Your task to perform on an android device: Add rayovac triple a to the cart on costco, then select checkout. Image 0: 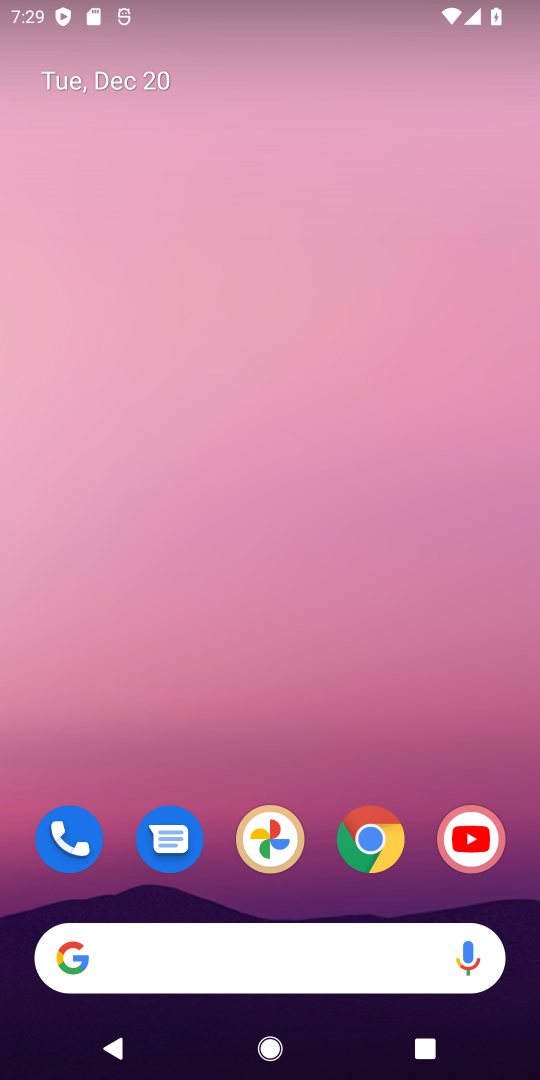
Step 0: click (244, 945)
Your task to perform on an android device: Add rayovac triple a to the cart on costco, then select checkout. Image 1: 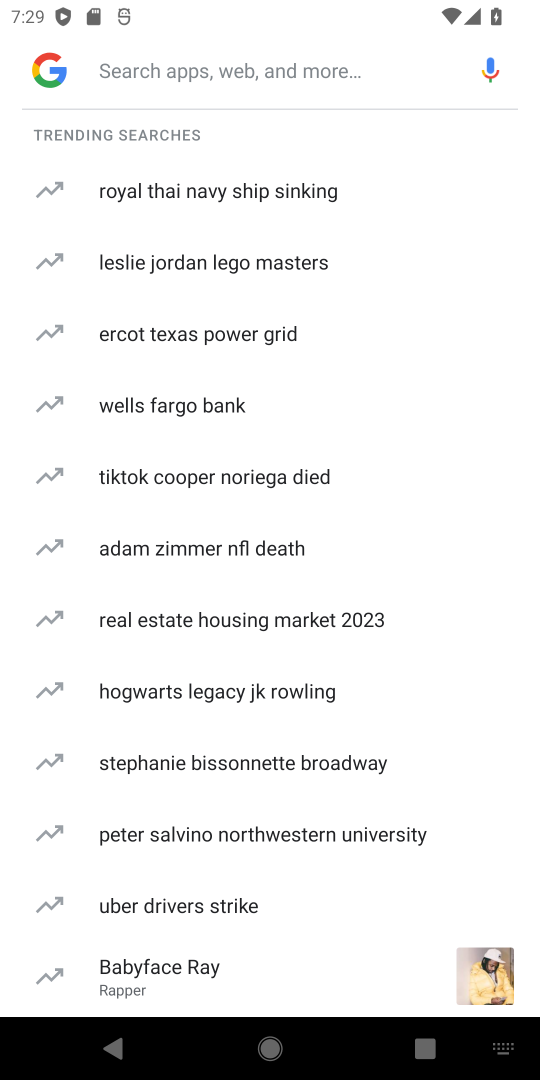
Step 1: type ""
Your task to perform on an android device: Add rayovac triple a to the cart on costco, then select checkout. Image 2: 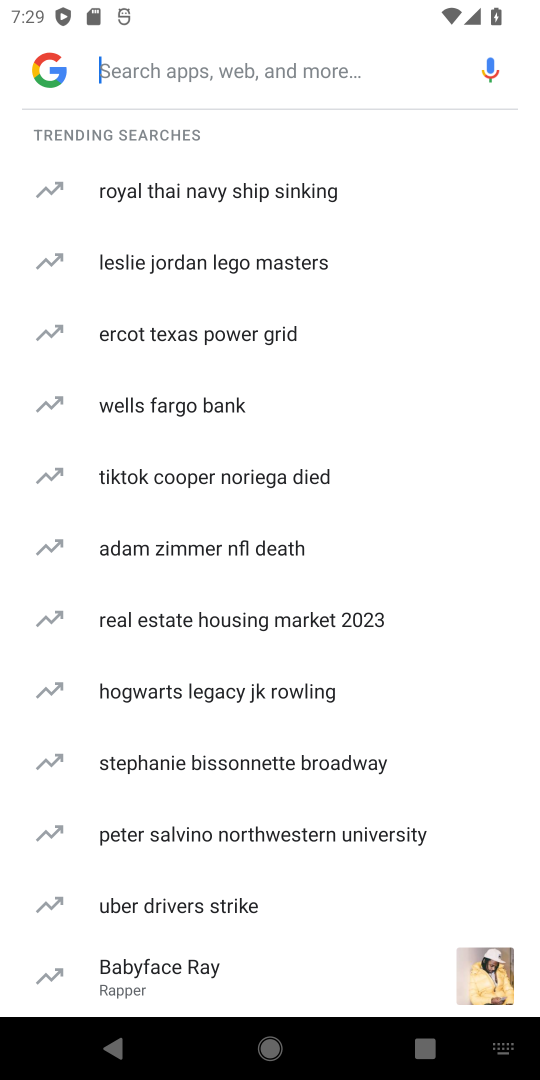
Step 2: type "costco"
Your task to perform on an android device: Add rayovac triple a to the cart on costco, then select checkout. Image 3: 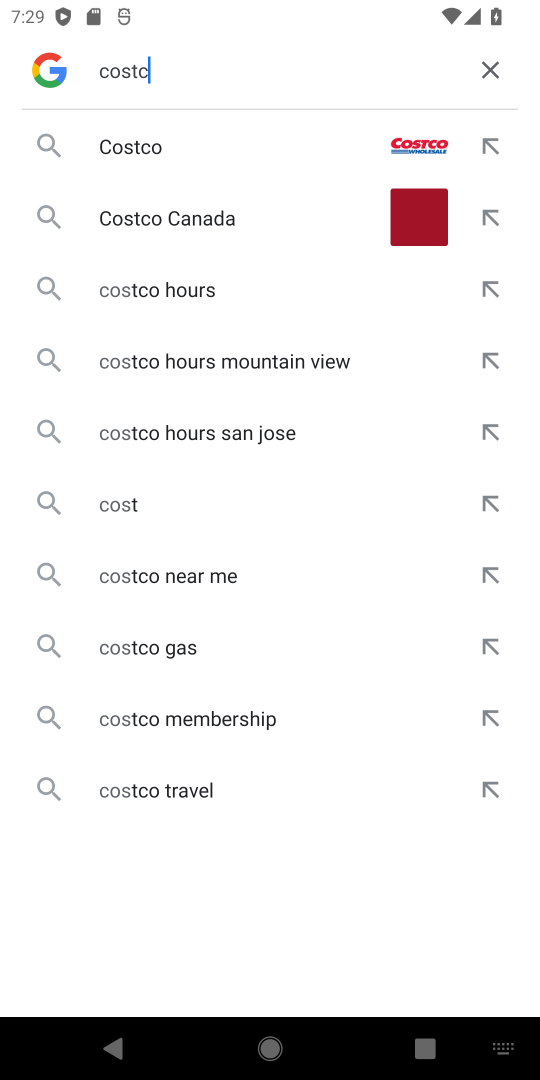
Step 3: type ""
Your task to perform on an android device: Add rayovac triple a to the cart on costco, then select checkout. Image 4: 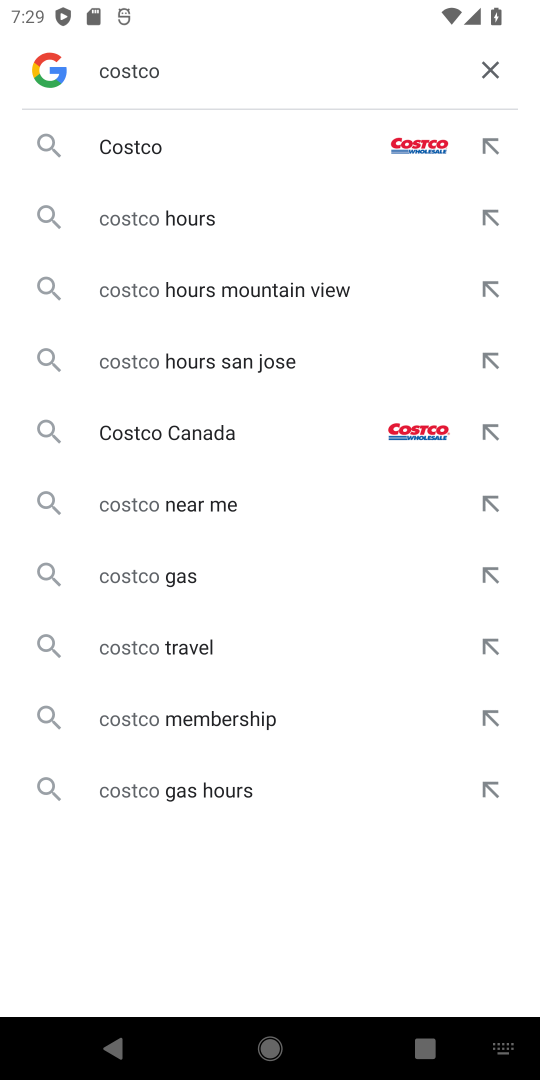
Step 4: click (197, 164)
Your task to perform on an android device: Add rayovac triple a to the cart on costco, then select checkout. Image 5: 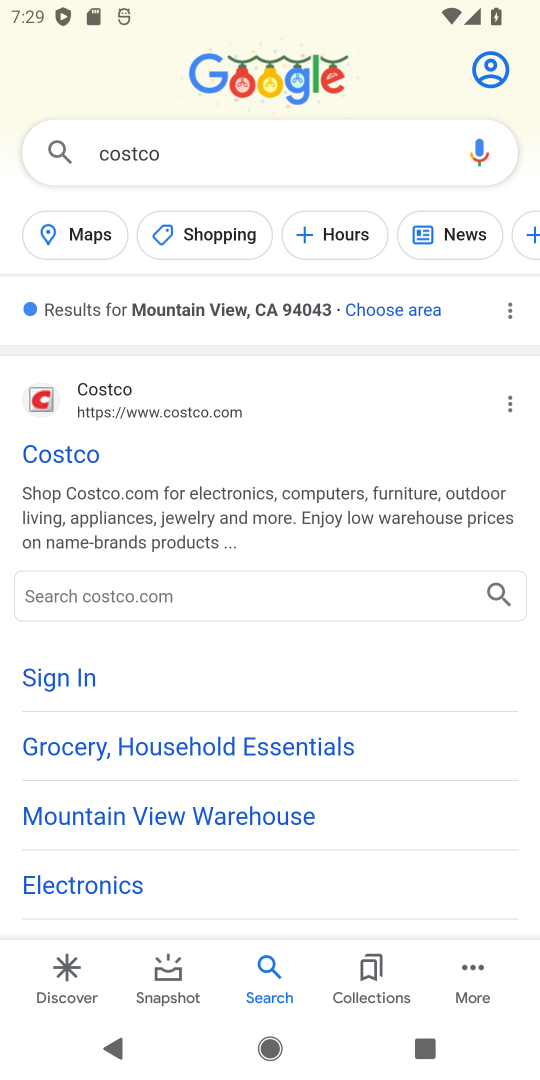
Step 5: click (64, 464)
Your task to perform on an android device: Add rayovac triple a to the cart on costco, then select checkout. Image 6: 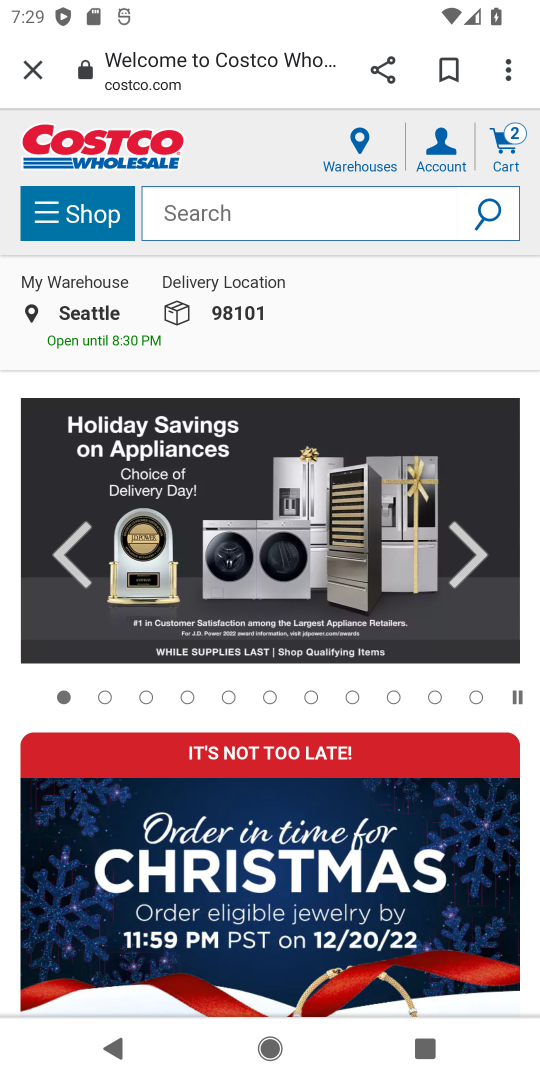
Step 6: click (202, 188)
Your task to perform on an android device: Add rayovac triple a to the cart on costco, then select checkout. Image 7: 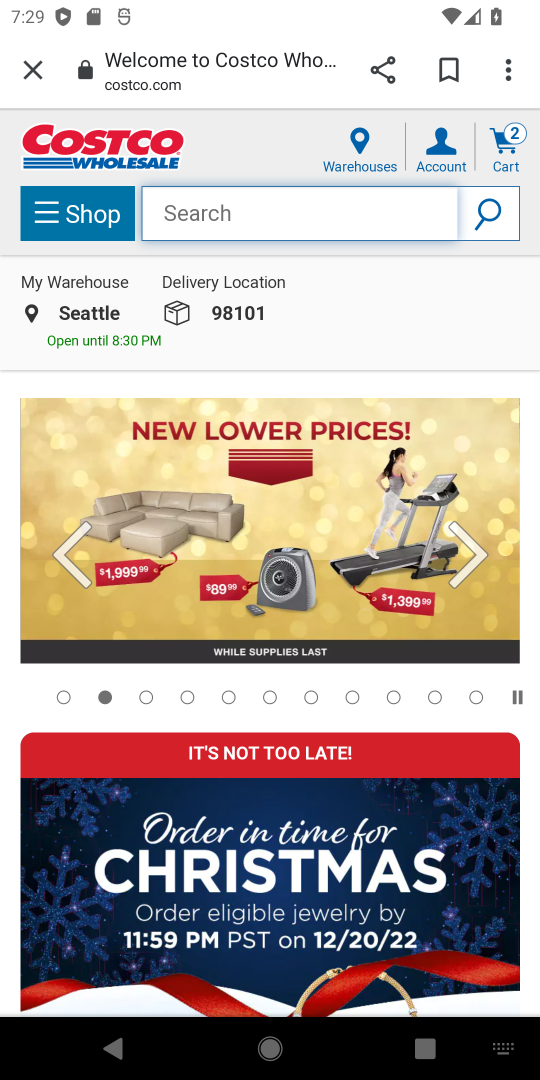
Step 7: type "rayovac triple"
Your task to perform on an android device: Add rayovac triple a to the cart on costco, then select checkout. Image 8: 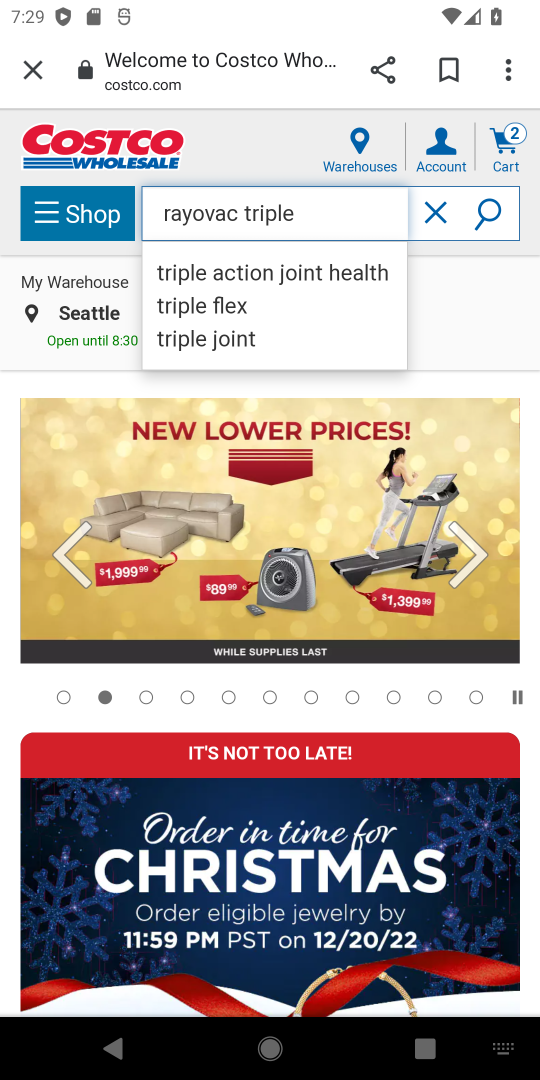
Step 8: click (488, 214)
Your task to perform on an android device: Add rayovac triple a to the cart on costco, then select checkout. Image 9: 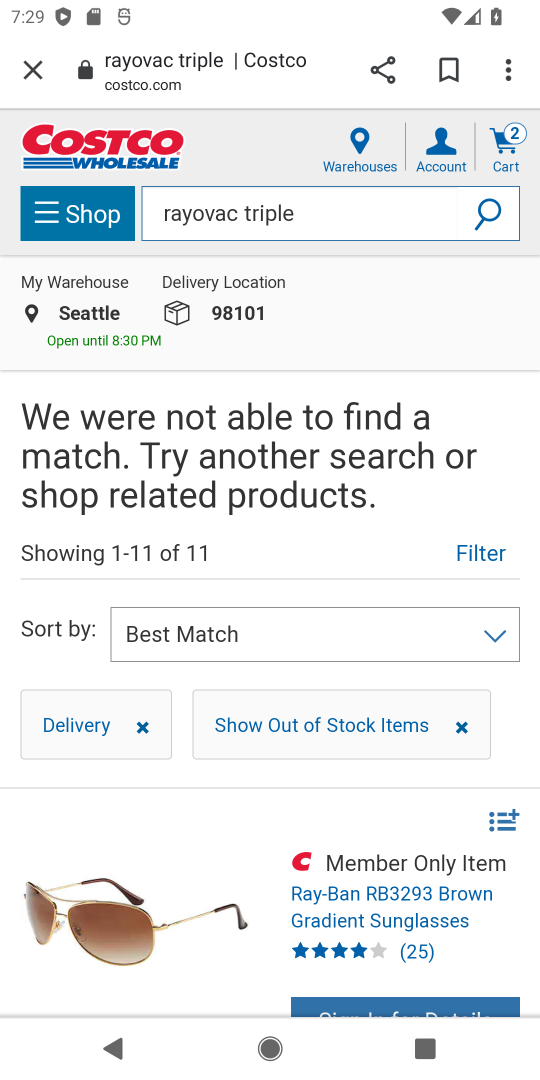
Step 9: drag from (200, 870) to (154, 502)
Your task to perform on an android device: Add rayovac triple a to the cart on costco, then select checkout. Image 10: 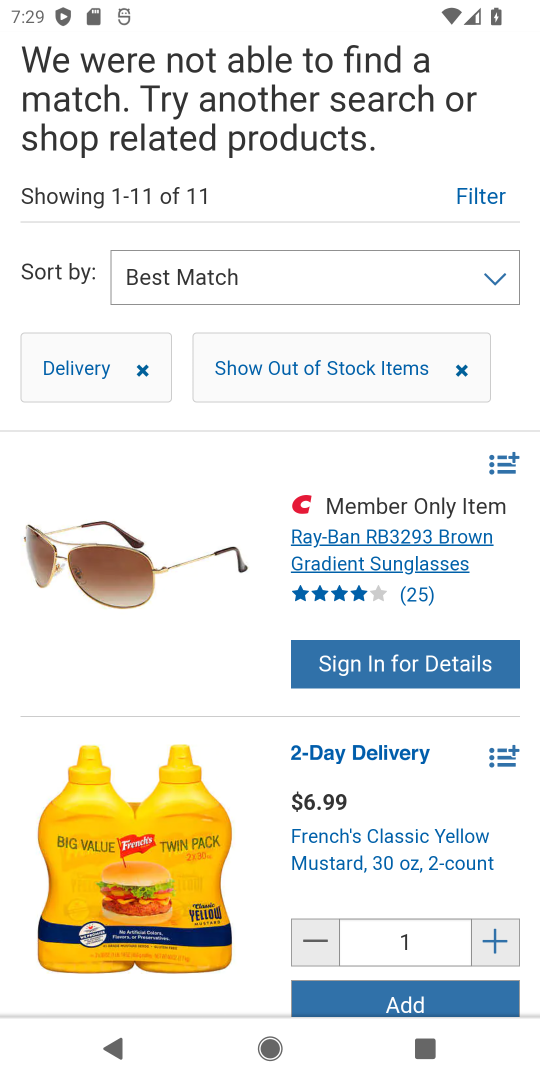
Step 10: drag from (235, 593) to (174, 977)
Your task to perform on an android device: Add rayovac triple a to the cart on costco, then select checkout. Image 11: 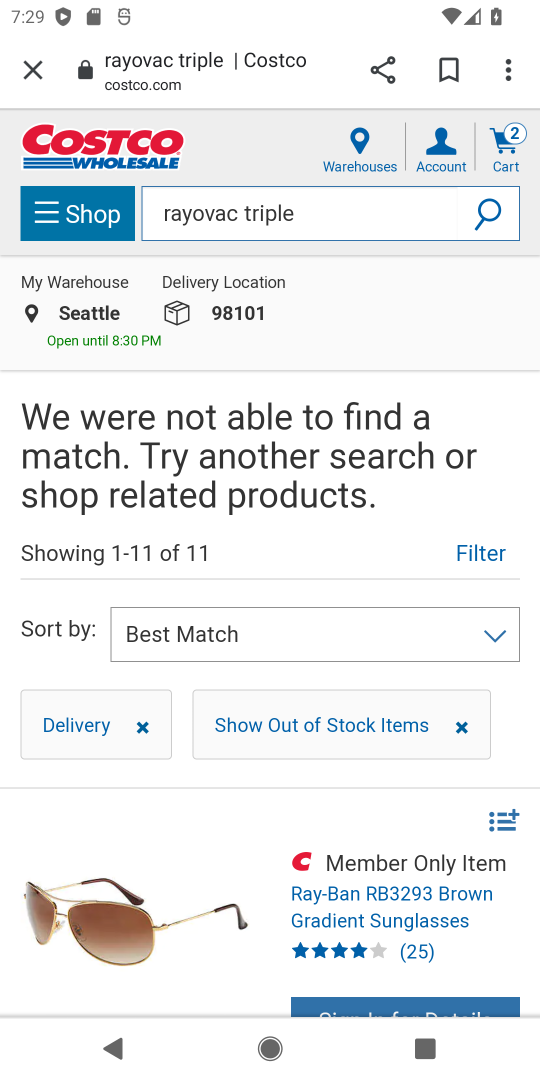
Step 11: press home button
Your task to perform on an android device: Add rayovac triple a to the cart on costco, then select checkout. Image 12: 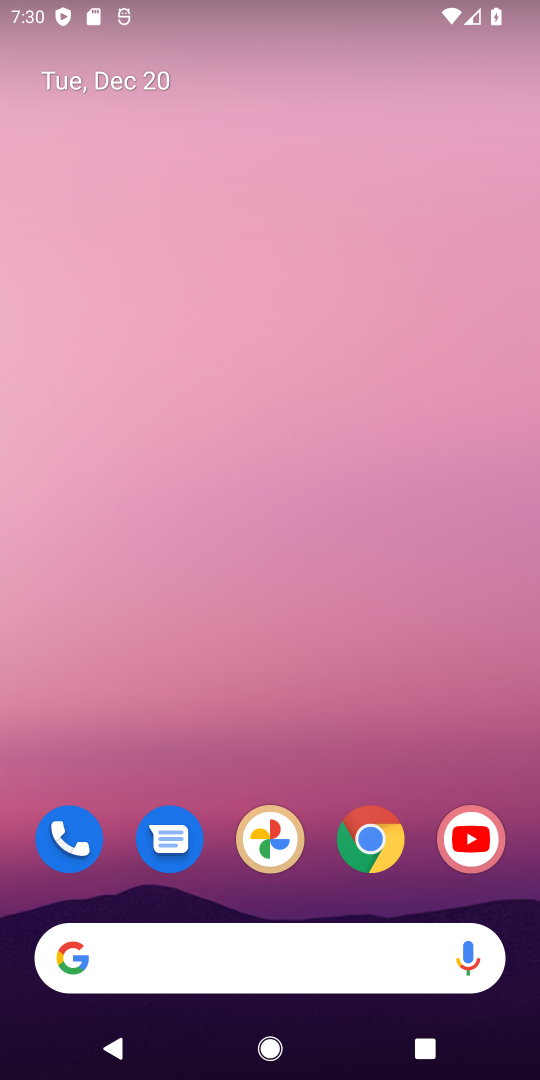
Step 12: drag from (228, 895) to (323, 207)
Your task to perform on an android device: Add rayovac triple a to the cart on costco, then select checkout. Image 13: 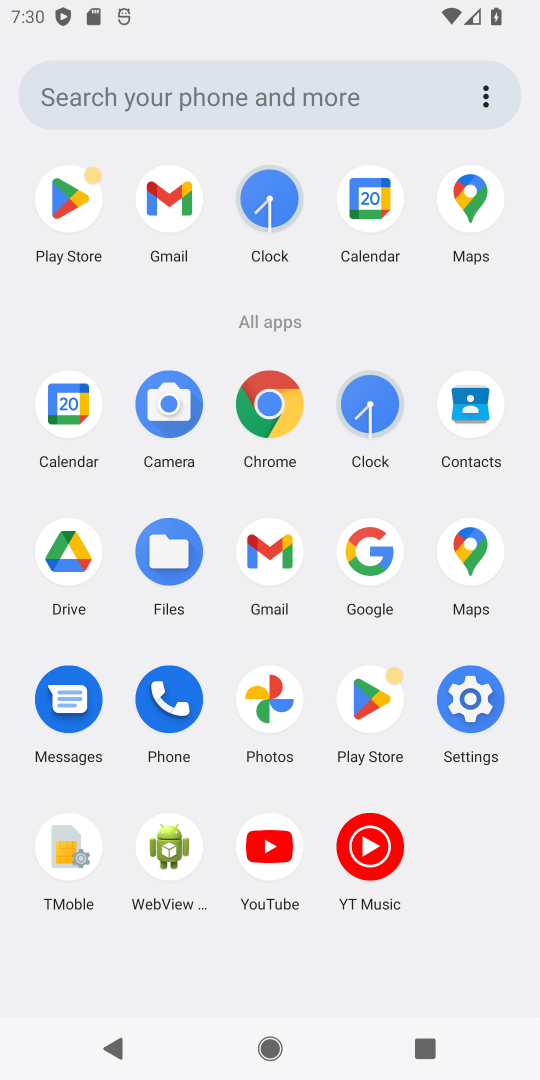
Step 13: click (266, 428)
Your task to perform on an android device: Add rayovac triple a to the cart on costco, then select checkout. Image 14: 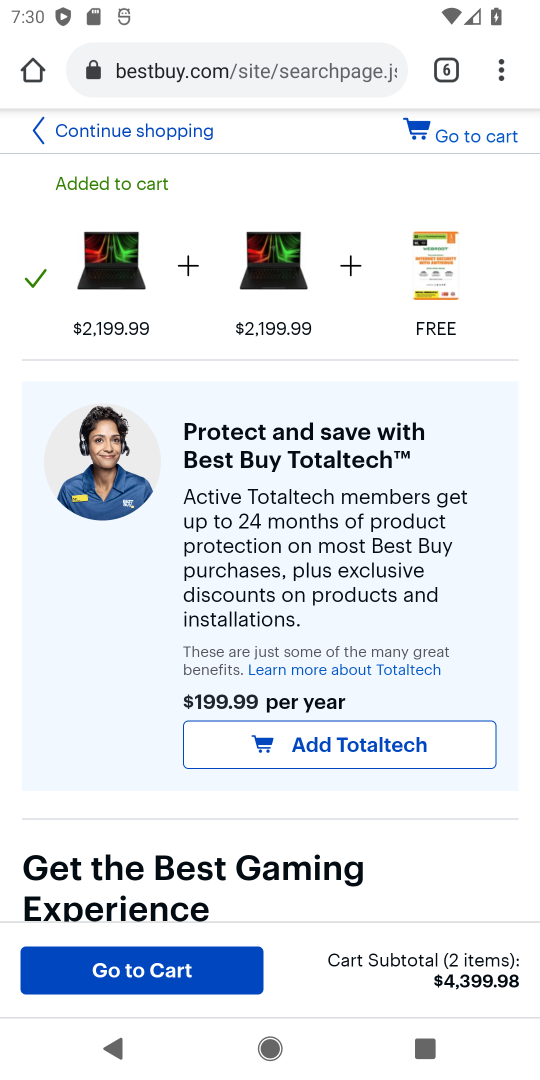
Step 14: click (219, 70)
Your task to perform on an android device: Add rayovac triple a to the cart on costco, then select checkout. Image 15: 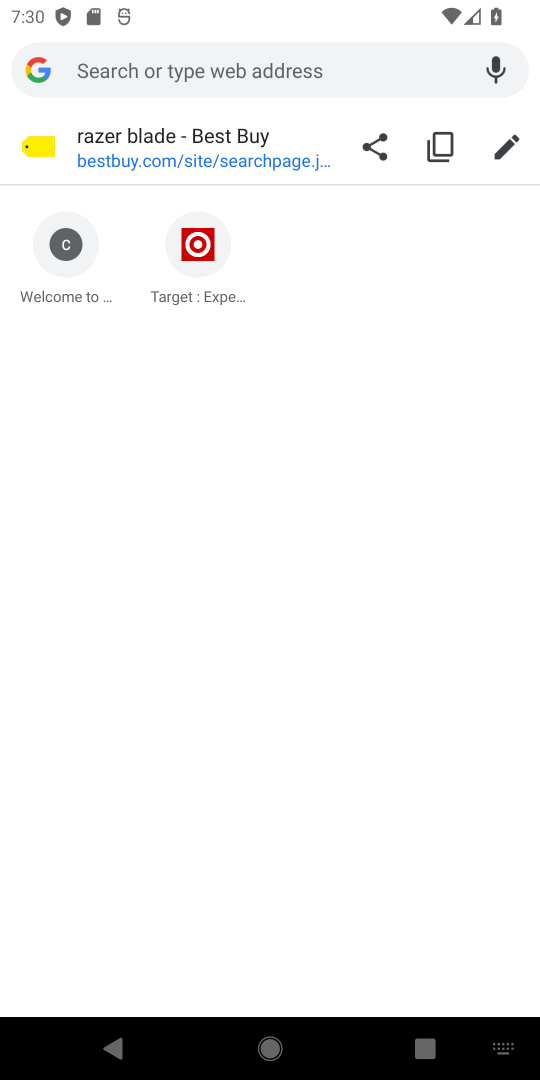
Step 15: type "costco"
Your task to perform on an android device: Add rayovac triple a to the cart on costco, then select checkout. Image 16: 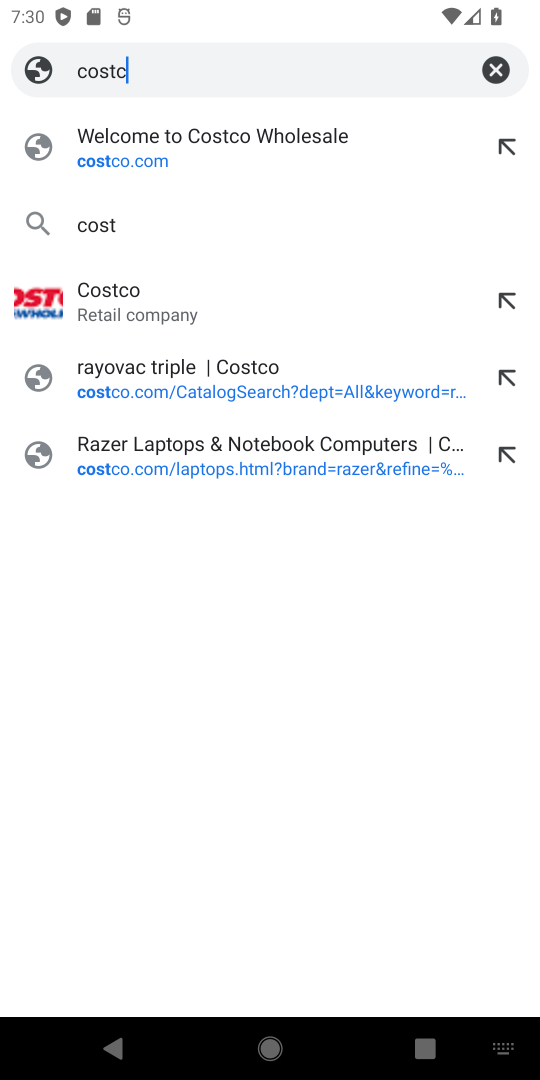
Step 16: type ""
Your task to perform on an android device: Add rayovac triple a to the cart on costco, then select checkout. Image 17: 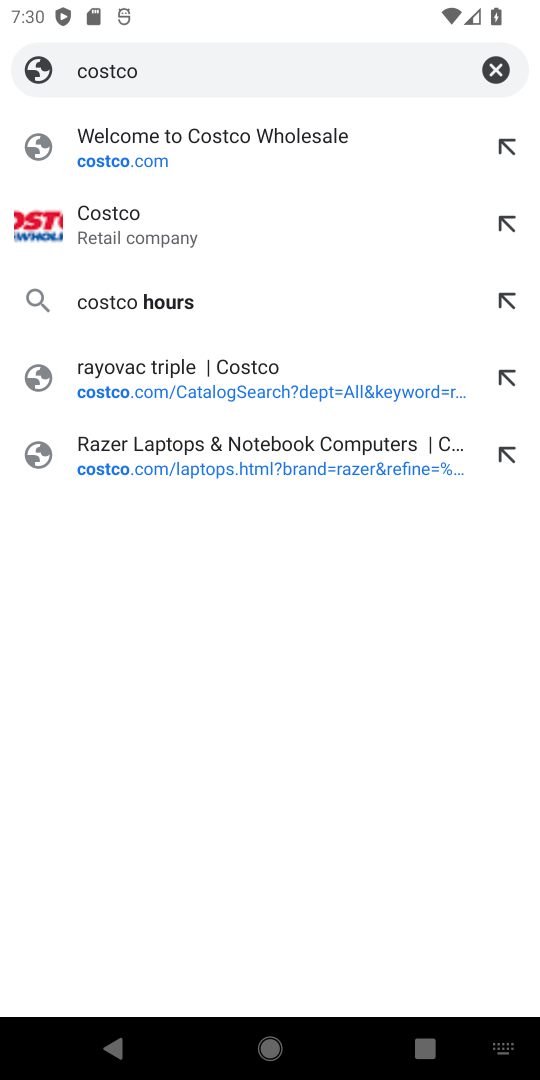
Step 17: click (103, 167)
Your task to perform on an android device: Add rayovac triple a to the cart on costco, then select checkout. Image 18: 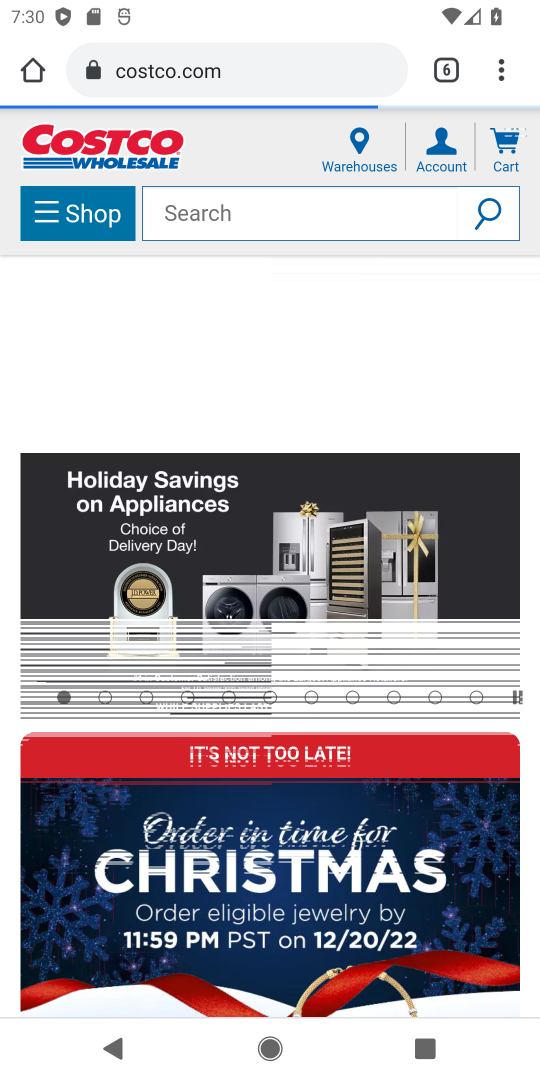
Step 18: drag from (325, 822) to (250, 136)
Your task to perform on an android device: Add rayovac triple a to the cart on costco, then select checkout. Image 19: 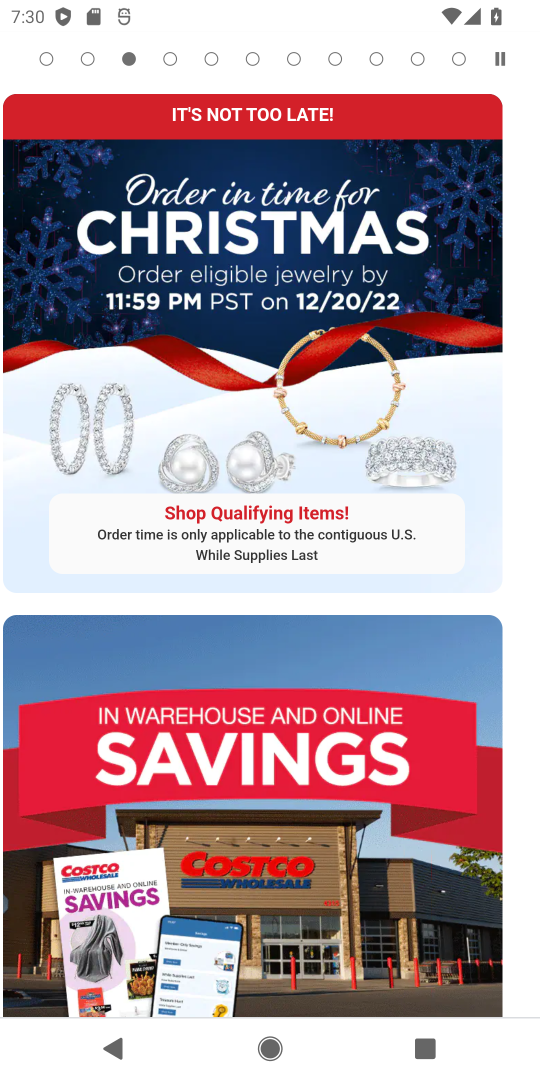
Step 19: drag from (289, 182) to (385, 1072)
Your task to perform on an android device: Add rayovac triple a to the cart on costco, then select checkout. Image 20: 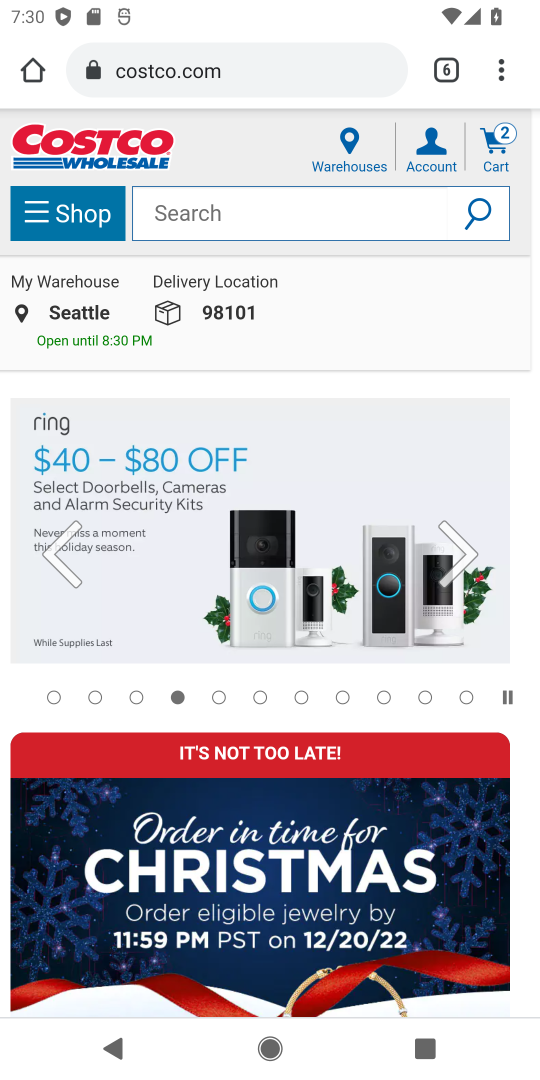
Step 20: click (323, 212)
Your task to perform on an android device: Add rayovac triple a to the cart on costco, then select checkout. Image 21: 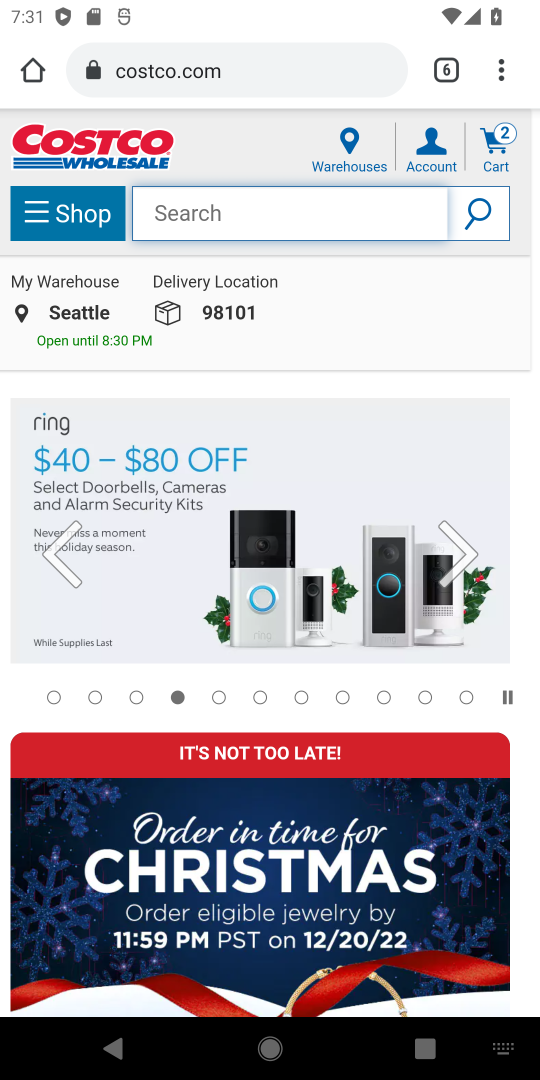
Step 21: type " rayovac triple a "
Your task to perform on an android device: Add rayovac triple a to the cart on costco, then select checkout. Image 22: 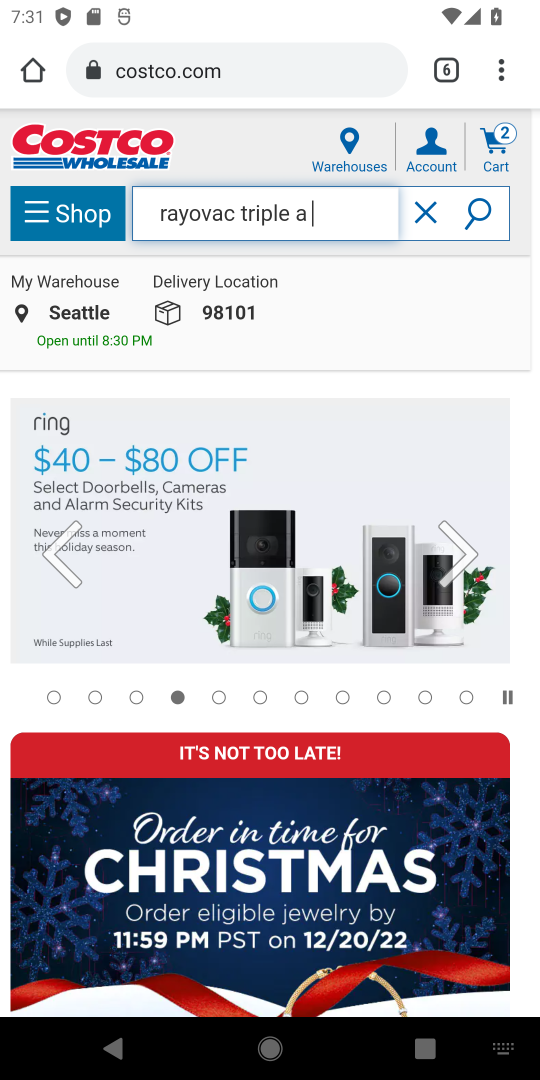
Step 22: type ""
Your task to perform on an android device: Add rayovac triple a to the cart on costco, then select checkout. Image 23: 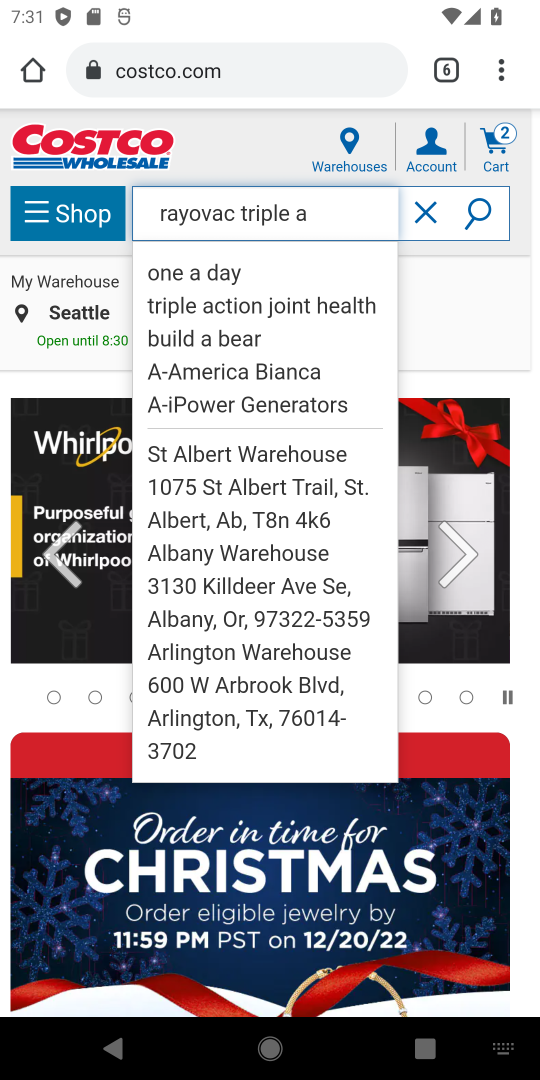
Step 23: click (489, 208)
Your task to perform on an android device: Add rayovac triple a to the cart on costco, then select checkout. Image 24: 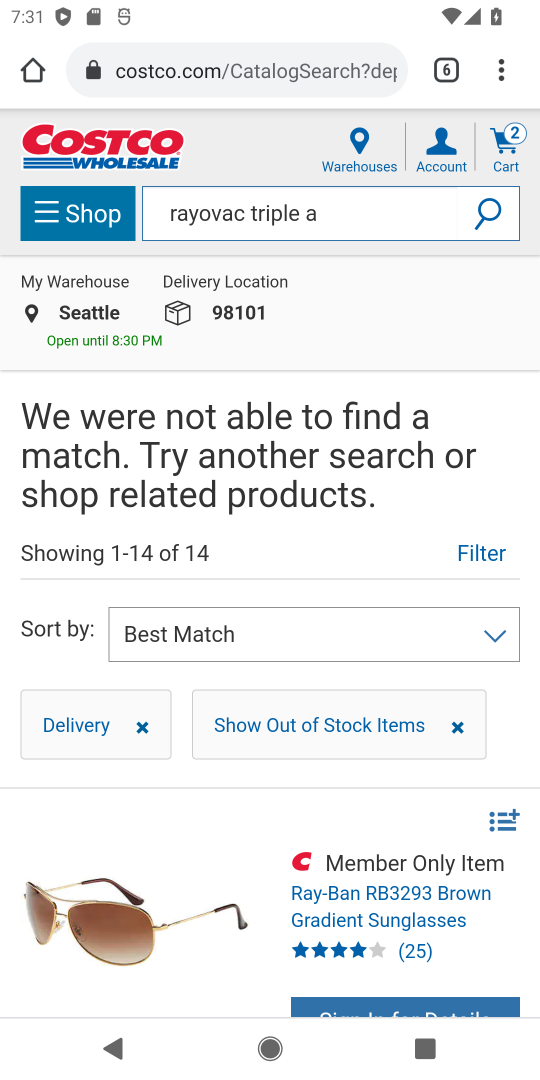
Step 24: task complete